Your task to perform on an android device: Go to settings Image 0: 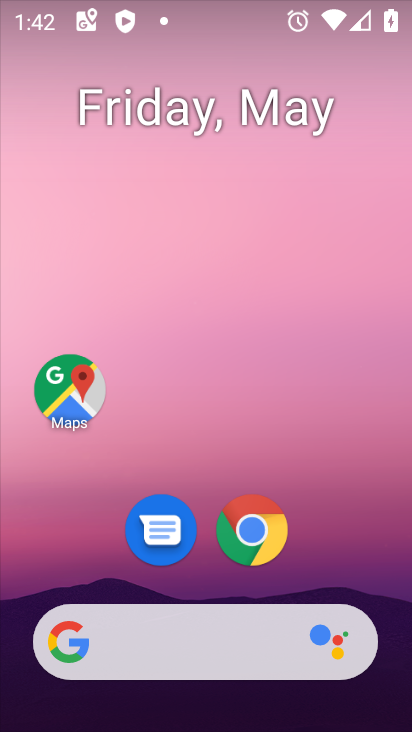
Step 0: drag from (338, 554) to (136, 15)
Your task to perform on an android device: Go to settings Image 1: 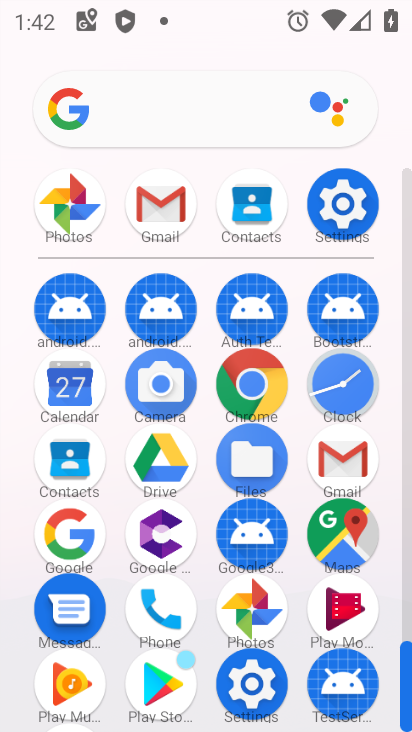
Step 1: click (341, 215)
Your task to perform on an android device: Go to settings Image 2: 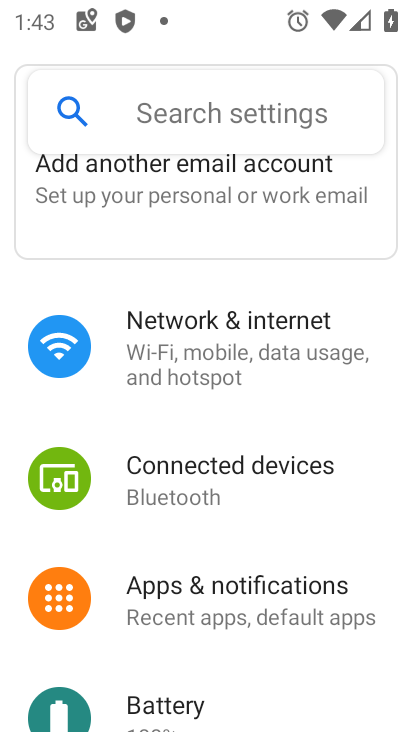
Step 2: task complete